Your task to perform on an android device: create a new album in the google photos Image 0: 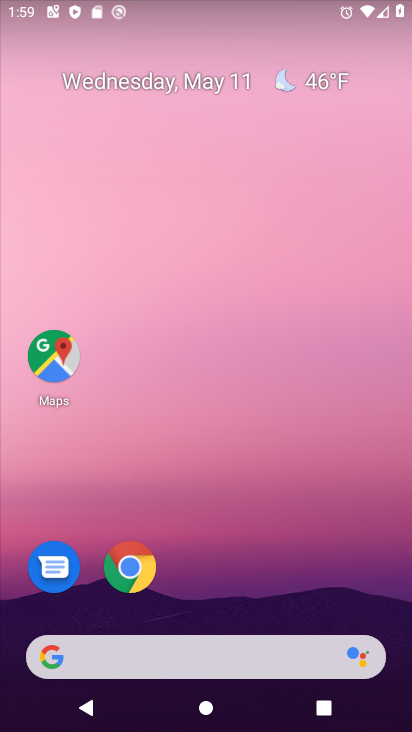
Step 0: drag from (197, 611) to (160, 23)
Your task to perform on an android device: create a new album in the google photos Image 1: 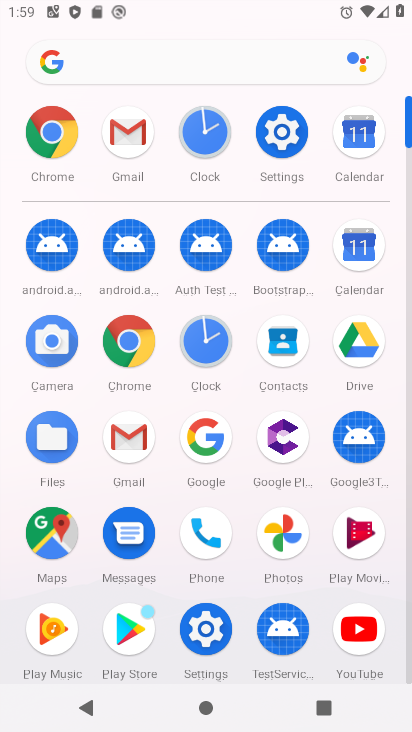
Step 1: click (277, 533)
Your task to perform on an android device: create a new album in the google photos Image 2: 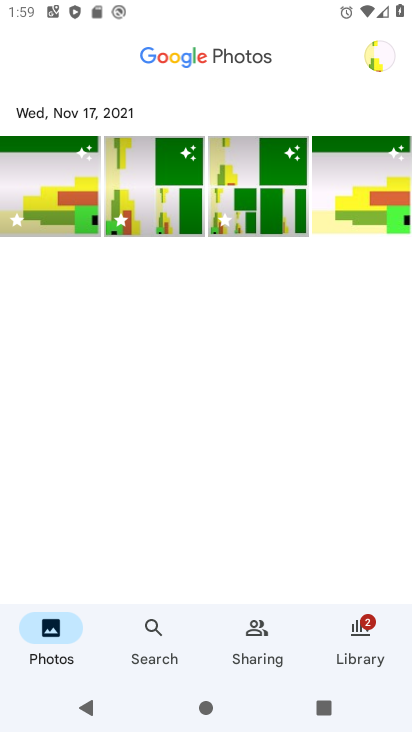
Step 2: click (61, 202)
Your task to perform on an android device: create a new album in the google photos Image 3: 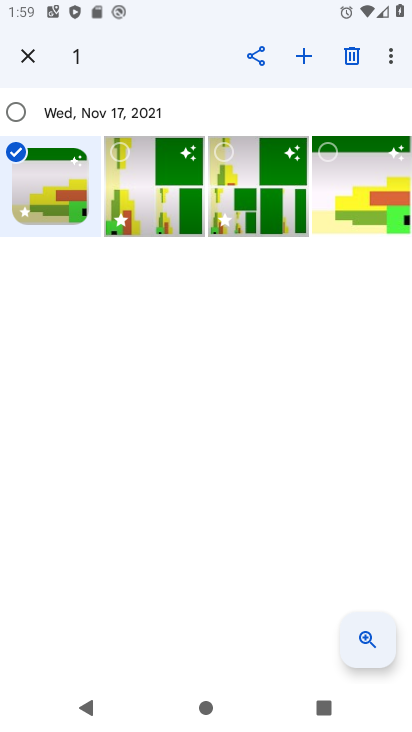
Step 3: click (136, 201)
Your task to perform on an android device: create a new album in the google photos Image 4: 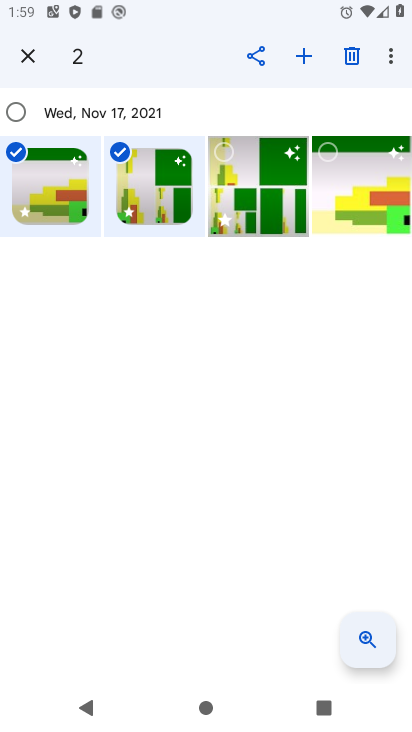
Step 4: click (304, 49)
Your task to perform on an android device: create a new album in the google photos Image 5: 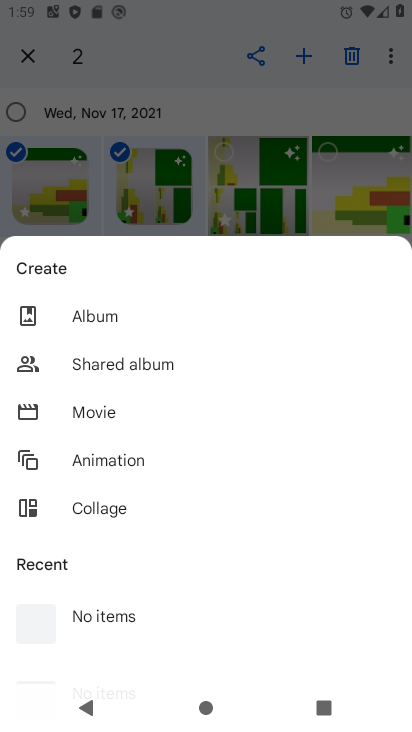
Step 5: click (88, 301)
Your task to perform on an android device: create a new album in the google photos Image 6: 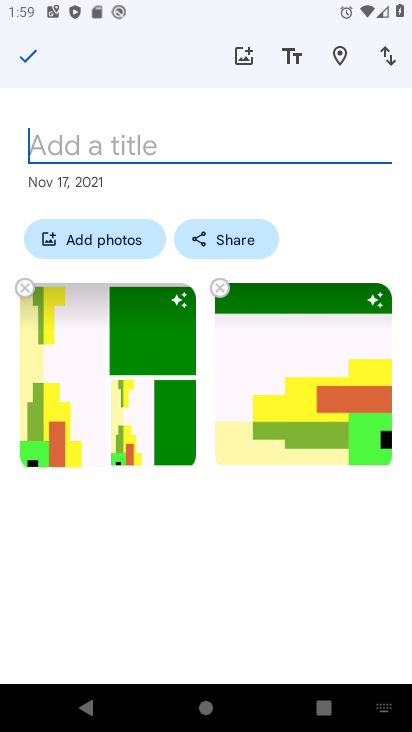
Step 6: type "hjuy"
Your task to perform on an android device: create a new album in the google photos Image 7: 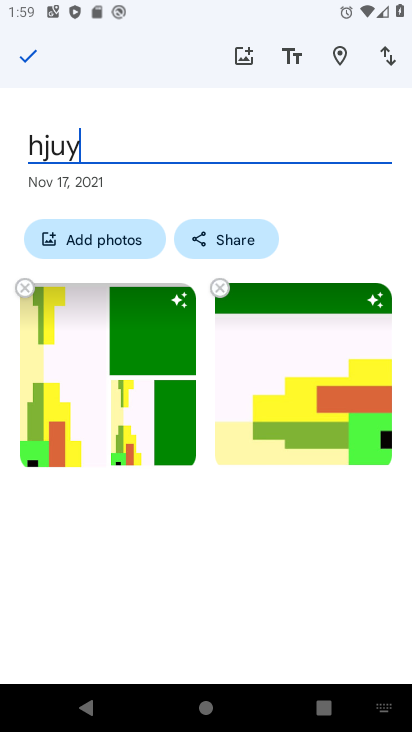
Step 7: type ""
Your task to perform on an android device: create a new album in the google photos Image 8: 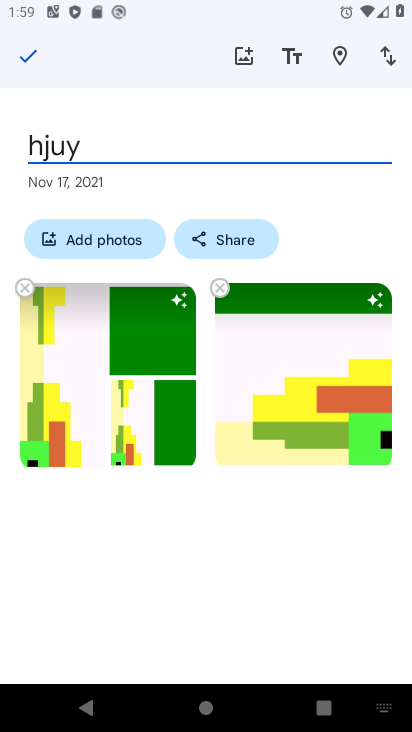
Step 8: click (21, 45)
Your task to perform on an android device: create a new album in the google photos Image 9: 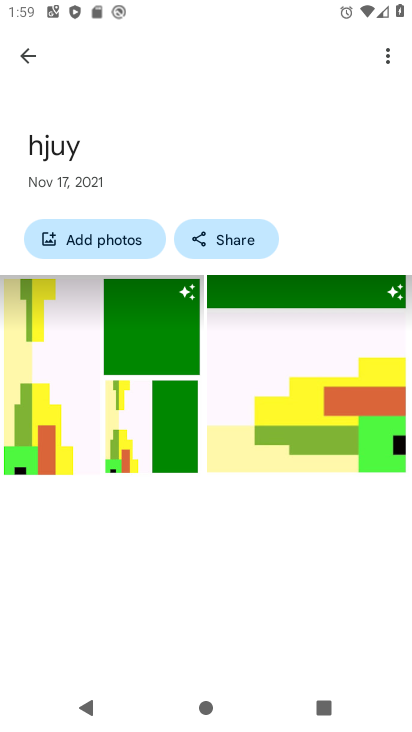
Step 9: task complete